Your task to perform on an android device: check android version Image 0: 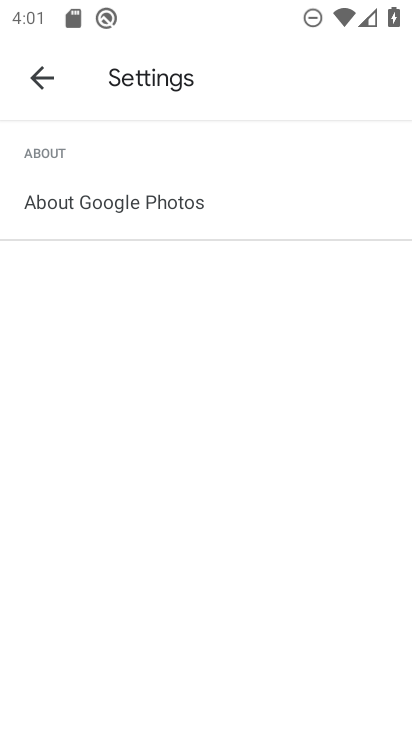
Step 0: press home button
Your task to perform on an android device: check android version Image 1: 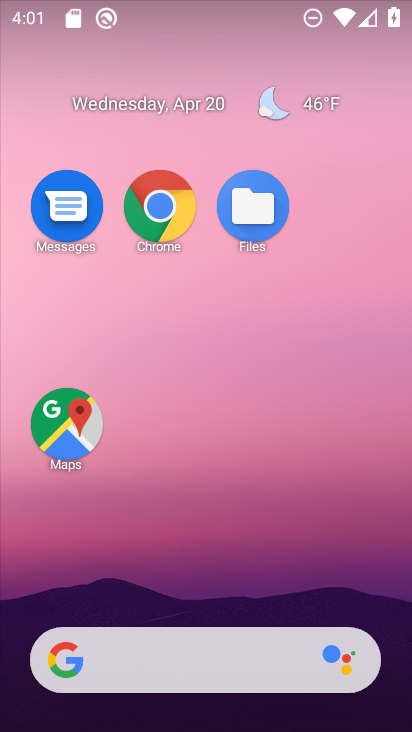
Step 1: drag from (173, 589) to (314, 15)
Your task to perform on an android device: check android version Image 2: 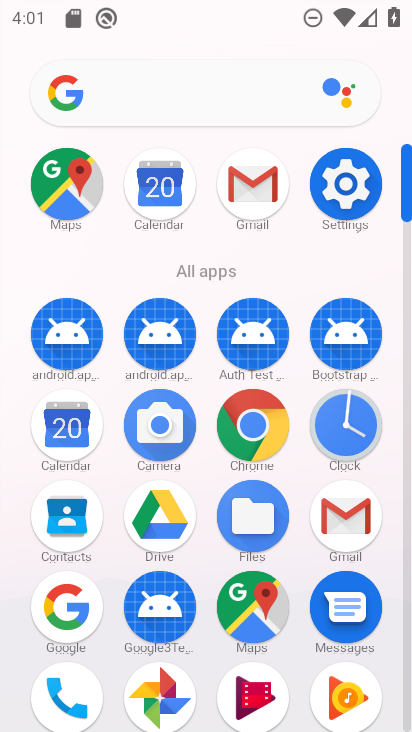
Step 2: click (357, 187)
Your task to perform on an android device: check android version Image 3: 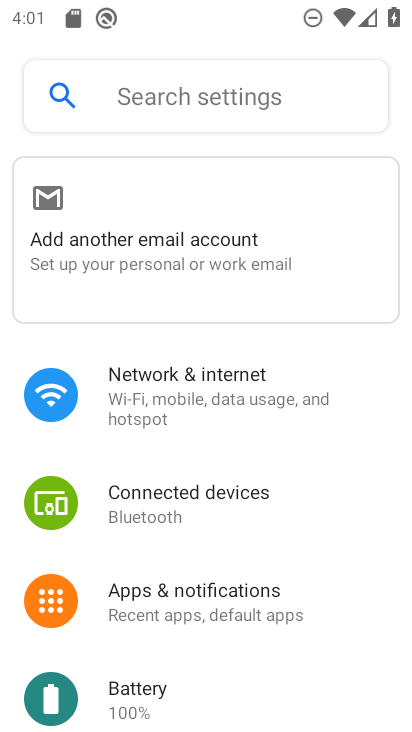
Step 3: drag from (184, 562) to (230, 61)
Your task to perform on an android device: check android version Image 4: 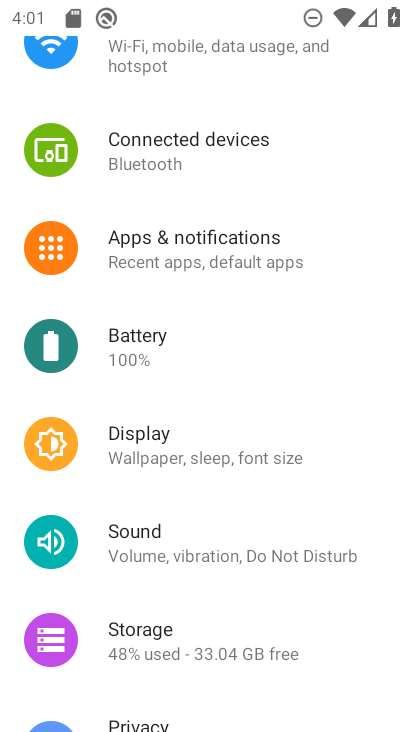
Step 4: drag from (132, 649) to (242, 173)
Your task to perform on an android device: check android version Image 5: 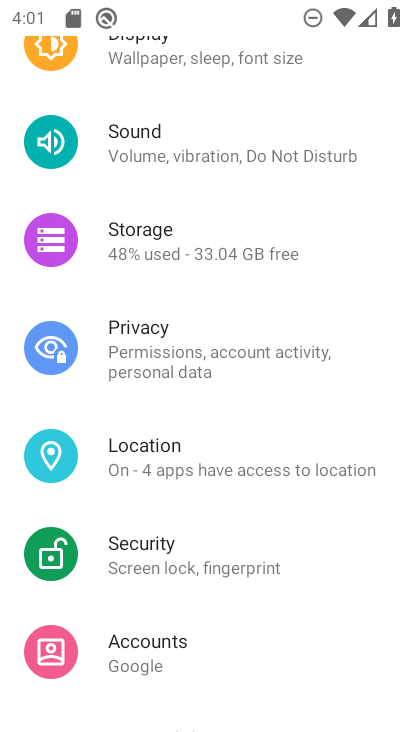
Step 5: drag from (131, 629) to (224, 186)
Your task to perform on an android device: check android version Image 6: 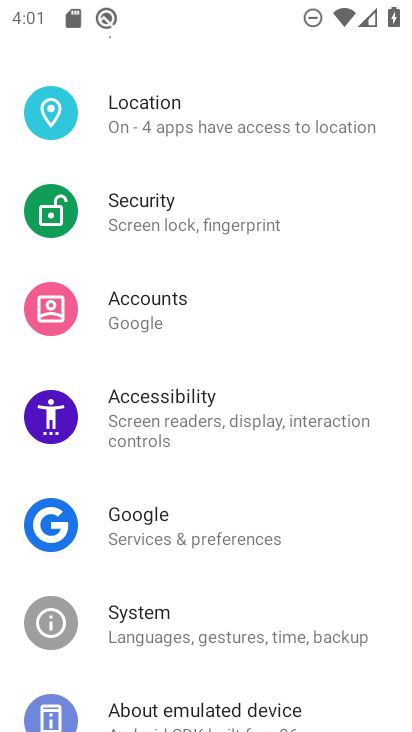
Step 6: drag from (194, 632) to (236, 194)
Your task to perform on an android device: check android version Image 7: 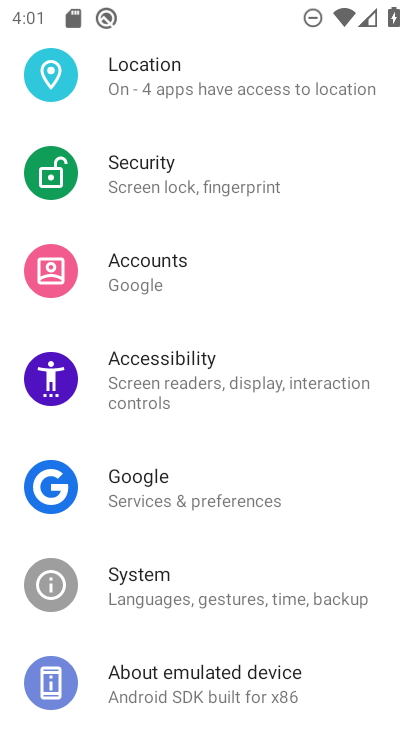
Step 7: click (153, 696)
Your task to perform on an android device: check android version Image 8: 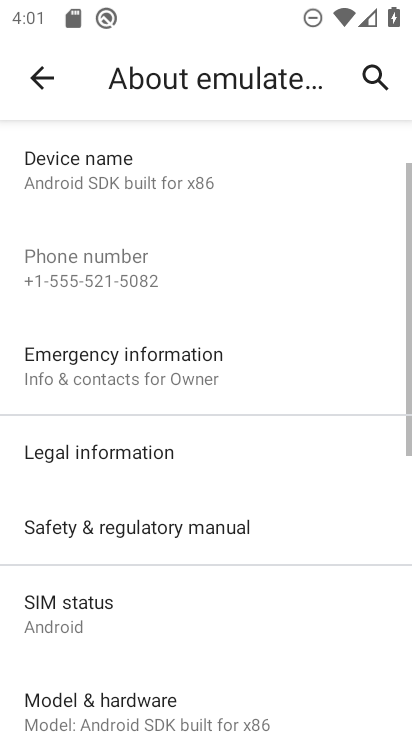
Step 8: drag from (106, 614) to (218, 166)
Your task to perform on an android device: check android version Image 9: 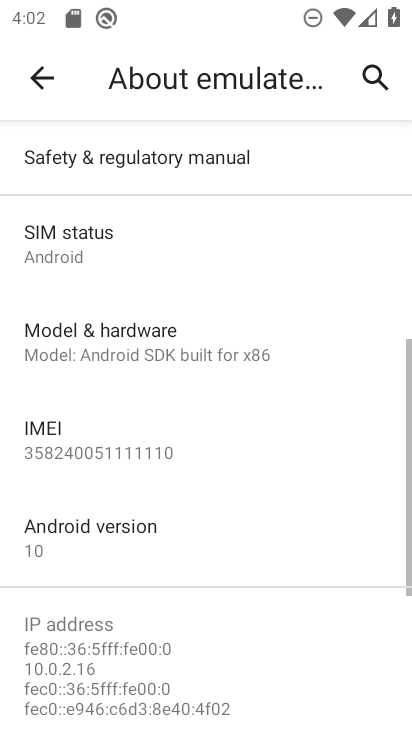
Step 9: click (113, 547)
Your task to perform on an android device: check android version Image 10: 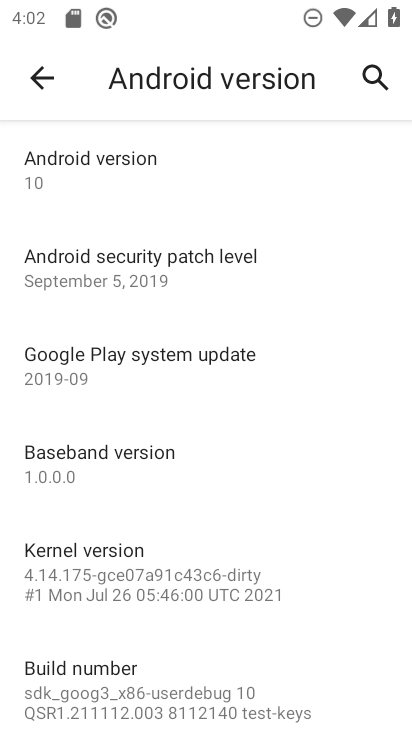
Step 10: task complete